Your task to perform on an android device: set the stopwatch Image 0: 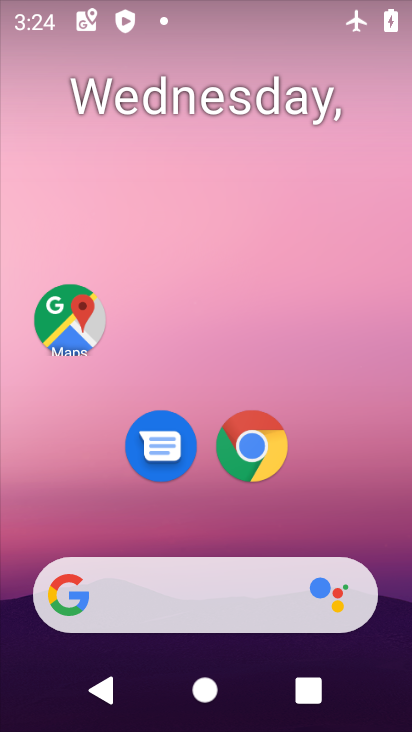
Step 0: drag from (199, 494) to (219, 46)
Your task to perform on an android device: set the stopwatch Image 1: 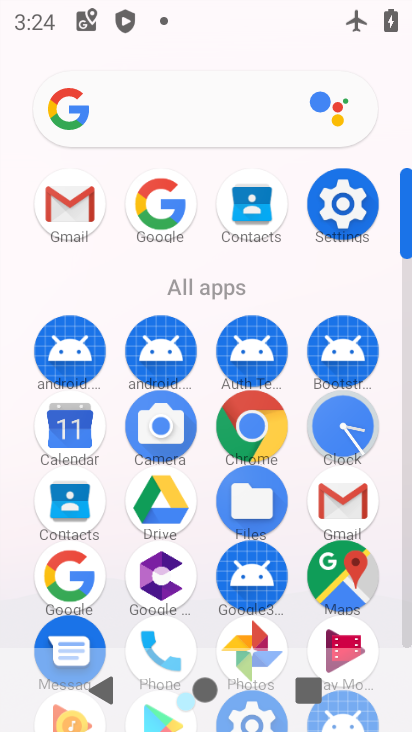
Step 1: click (345, 415)
Your task to perform on an android device: set the stopwatch Image 2: 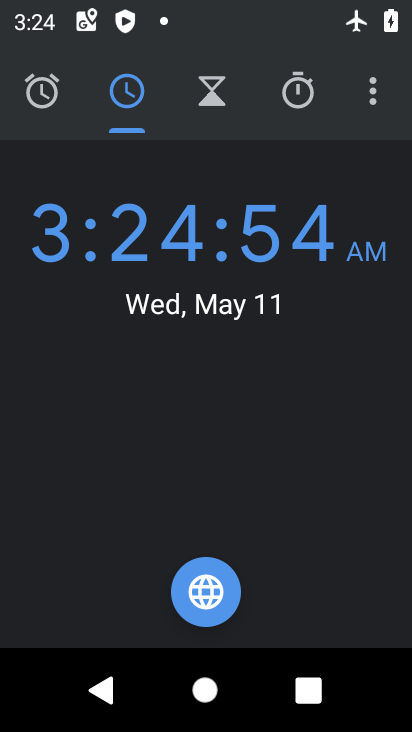
Step 2: click (305, 88)
Your task to perform on an android device: set the stopwatch Image 3: 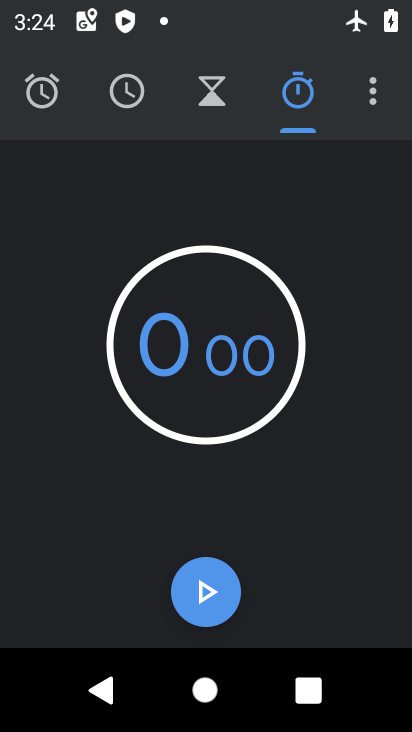
Step 3: click (200, 600)
Your task to perform on an android device: set the stopwatch Image 4: 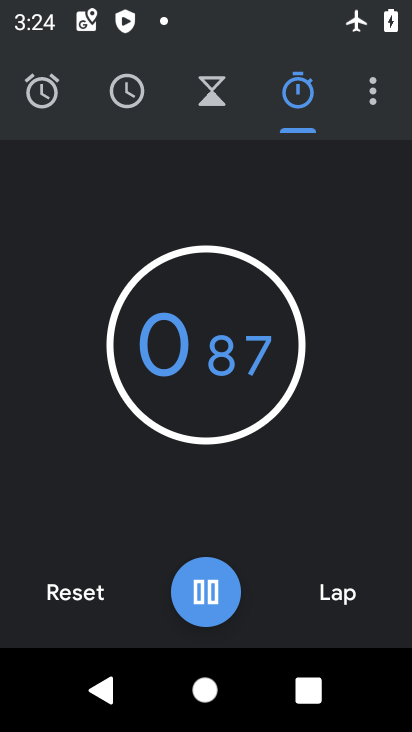
Step 4: click (200, 600)
Your task to perform on an android device: set the stopwatch Image 5: 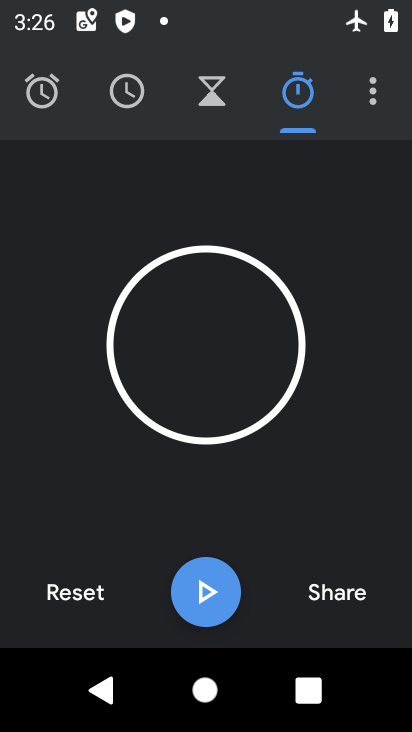
Step 5: task complete